Your task to perform on an android device: set the timer Image 0: 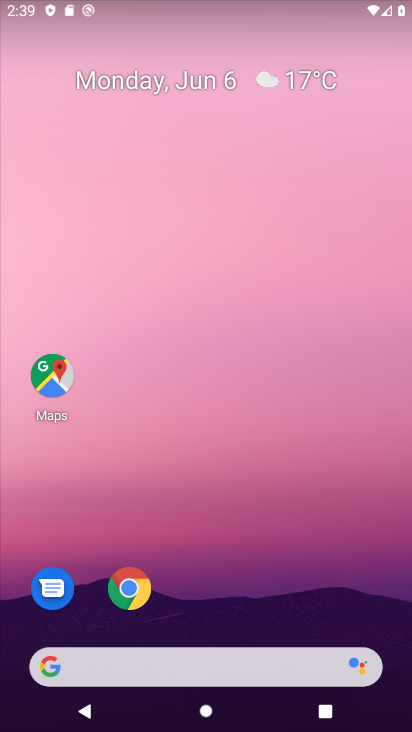
Step 0: drag from (193, 650) to (335, 148)
Your task to perform on an android device: set the timer Image 1: 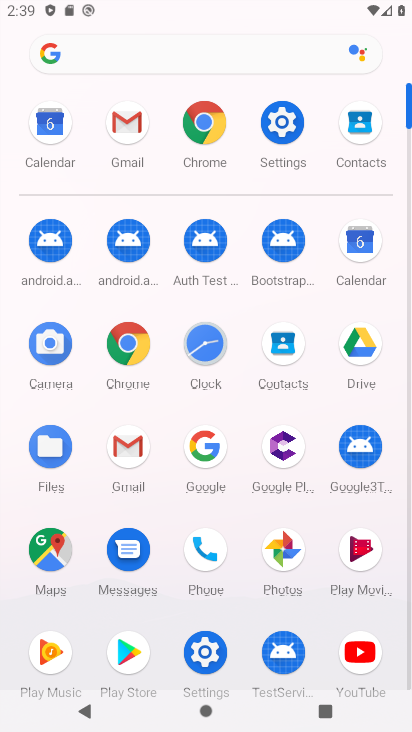
Step 1: click (222, 335)
Your task to perform on an android device: set the timer Image 2: 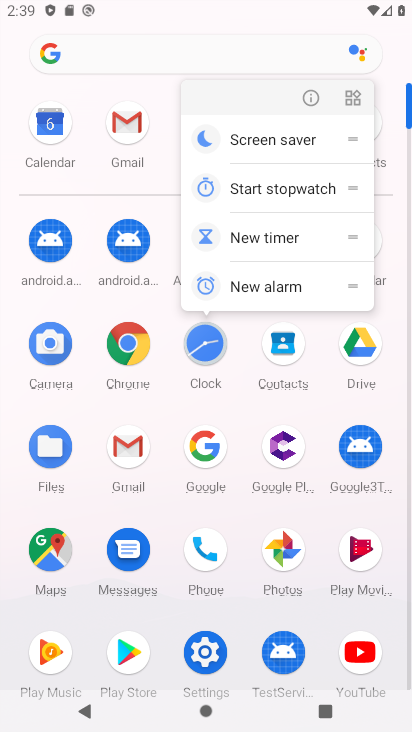
Step 2: click (270, 234)
Your task to perform on an android device: set the timer Image 3: 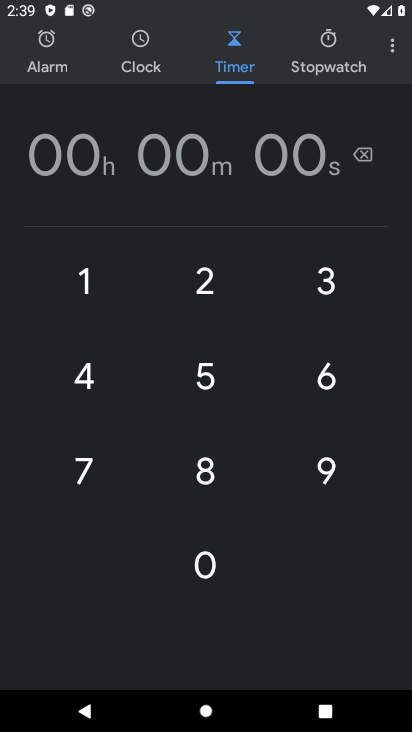
Step 3: click (193, 364)
Your task to perform on an android device: set the timer Image 4: 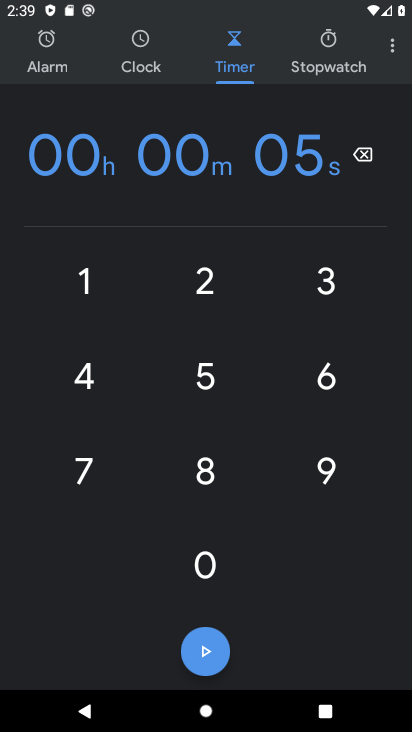
Step 4: click (218, 275)
Your task to perform on an android device: set the timer Image 5: 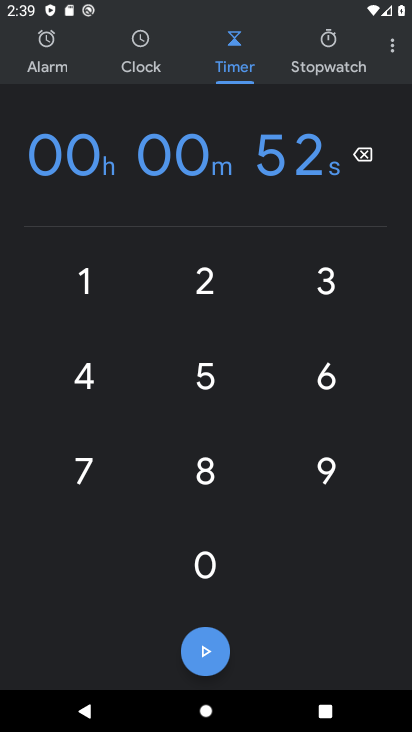
Step 5: click (334, 478)
Your task to perform on an android device: set the timer Image 6: 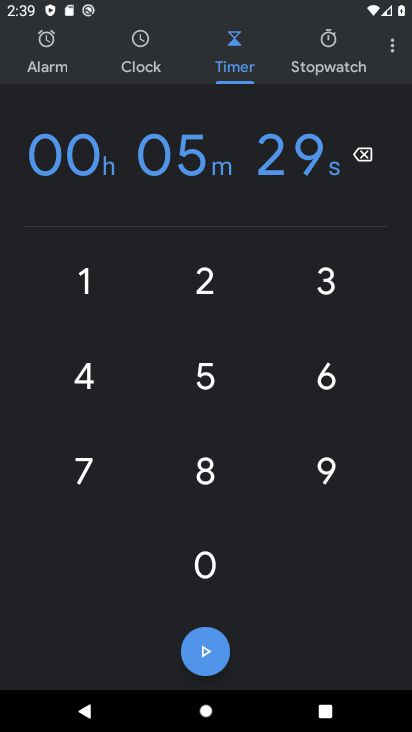
Step 6: click (220, 646)
Your task to perform on an android device: set the timer Image 7: 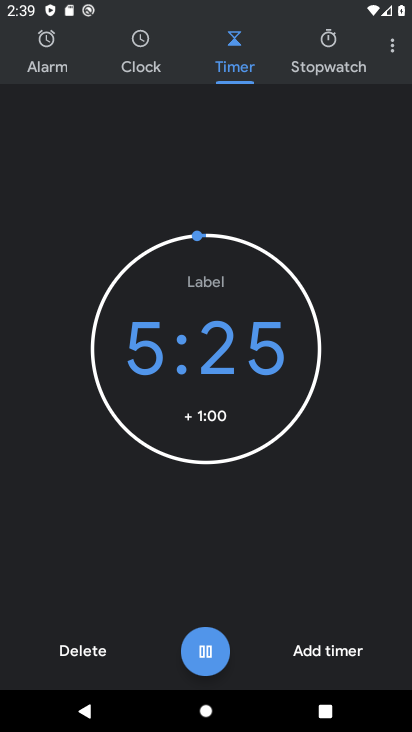
Step 7: task complete